Your task to perform on an android device: Open CNN.com Image 0: 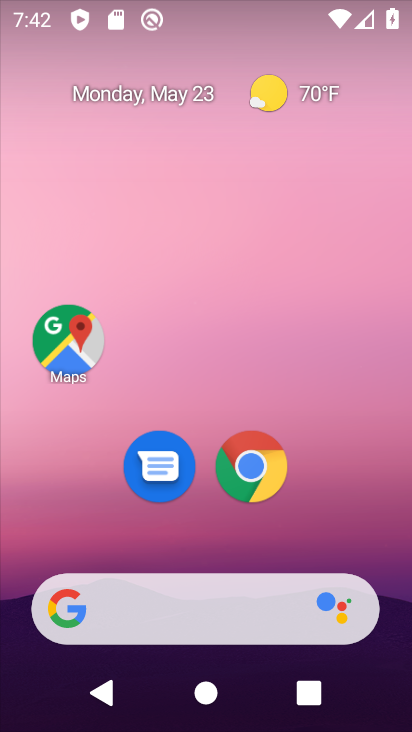
Step 0: drag from (236, 639) to (378, 97)
Your task to perform on an android device: Open CNN.com Image 1: 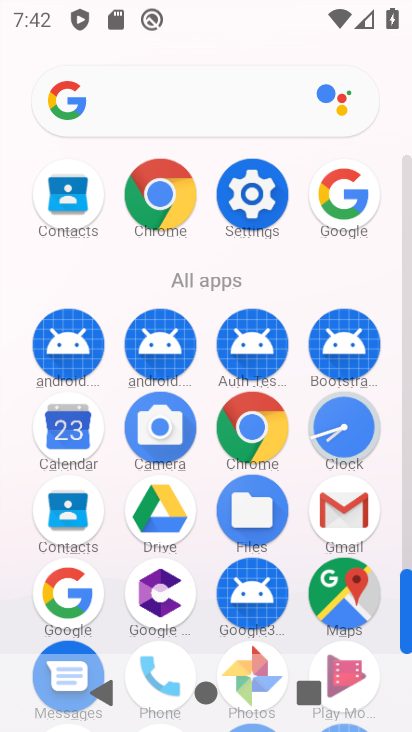
Step 1: click (172, 183)
Your task to perform on an android device: Open CNN.com Image 2: 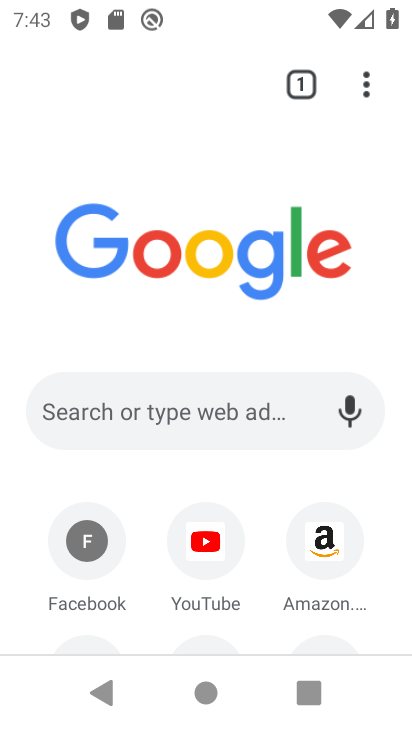
Step 2: click (152, 431)
Your task to perform on an android device: Open CNN.com Image 3: 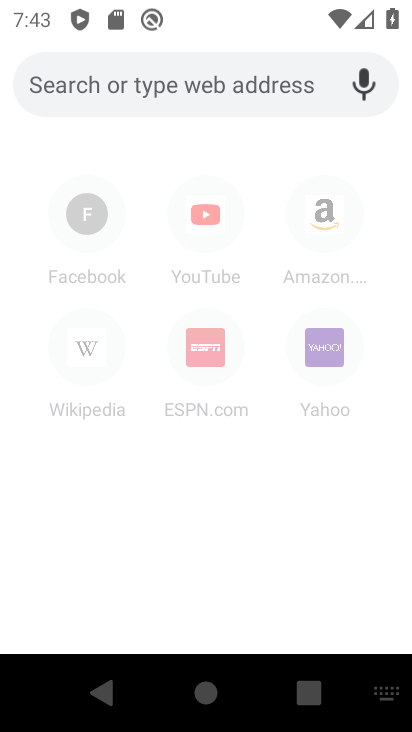
Step 3: type "cnn"
Your task to perform on an android device: Open CNN.com Image 4: 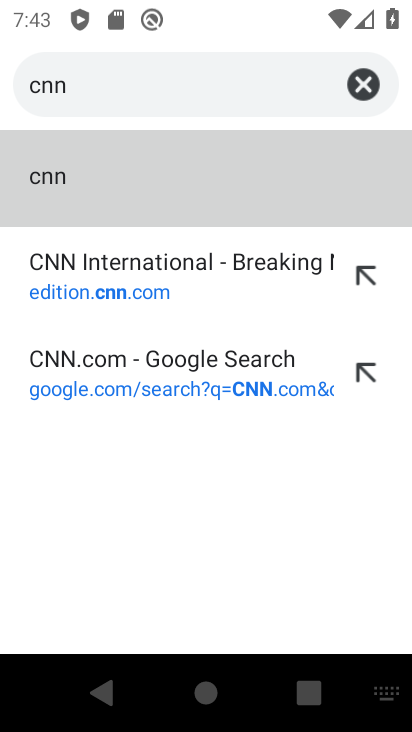
Step 4: click (119, 292)
Your task to perform on an android device: Open CNN.com Image 5: 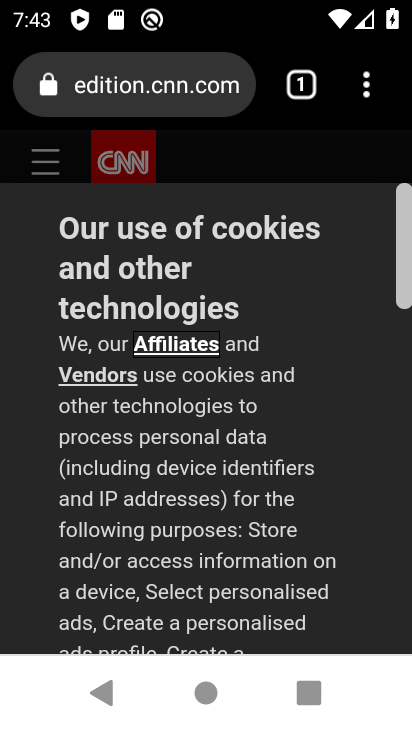
Step 5: task complete